Your task to perform on an android device: turn notification dots on Image 0: 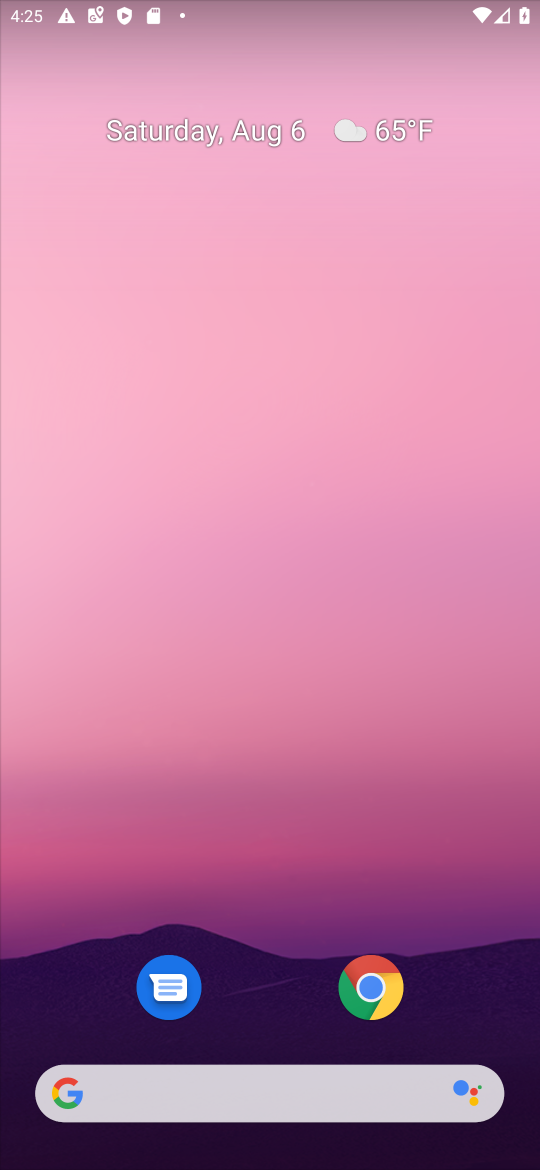
Step 0: drag from (256, 1014) to (291, 136)
Your task to perform on an android device: turn notification dots on Image 1: 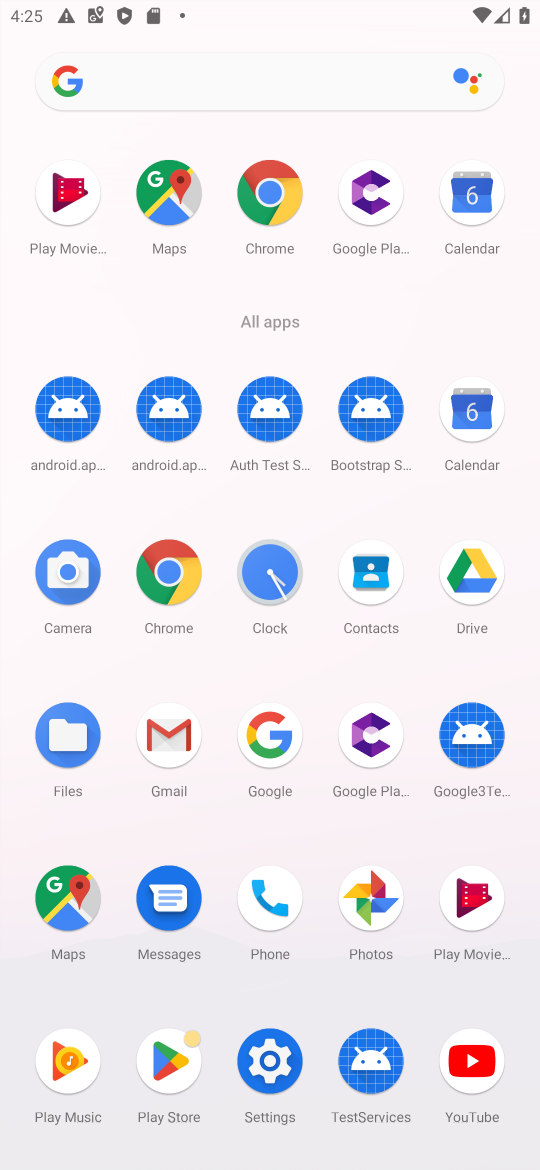
Step 1: click (272, 1066)
Your task to perform on an android device: turn notification dots on Image 2: 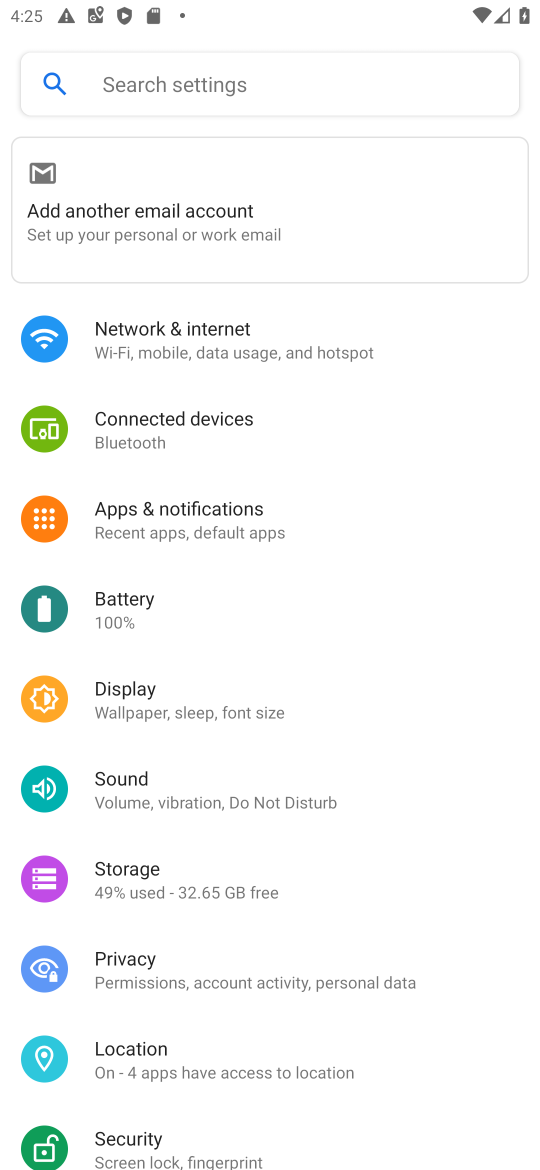
Step 2: click (231, 532)
Your task to perform on an android device: turn notification dots on Image 3: 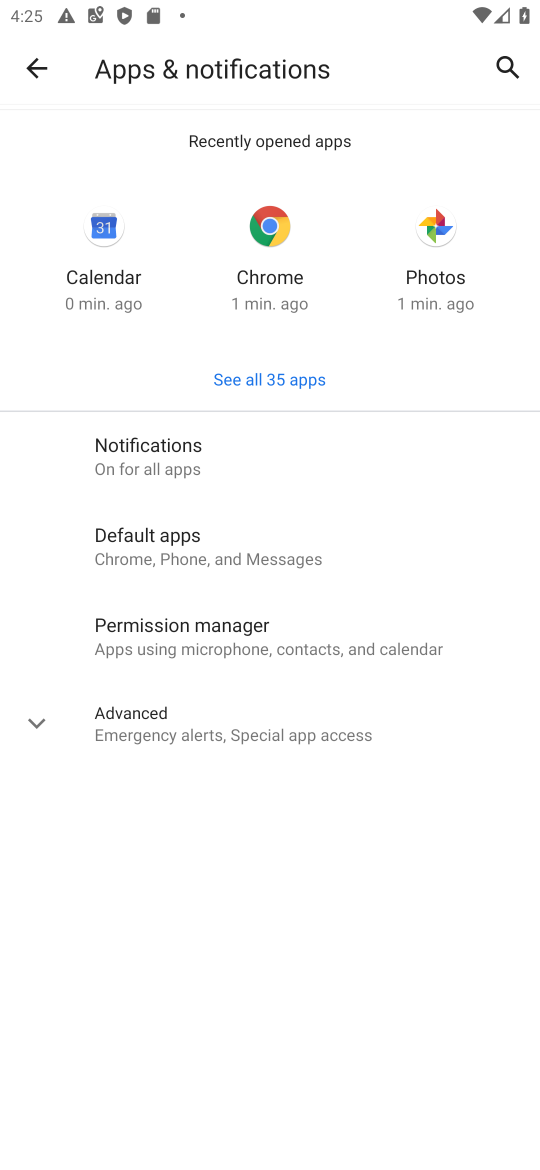
Step 3: click (151, 459)
Your task to perform on an android device: turn notification dots on Image 4: 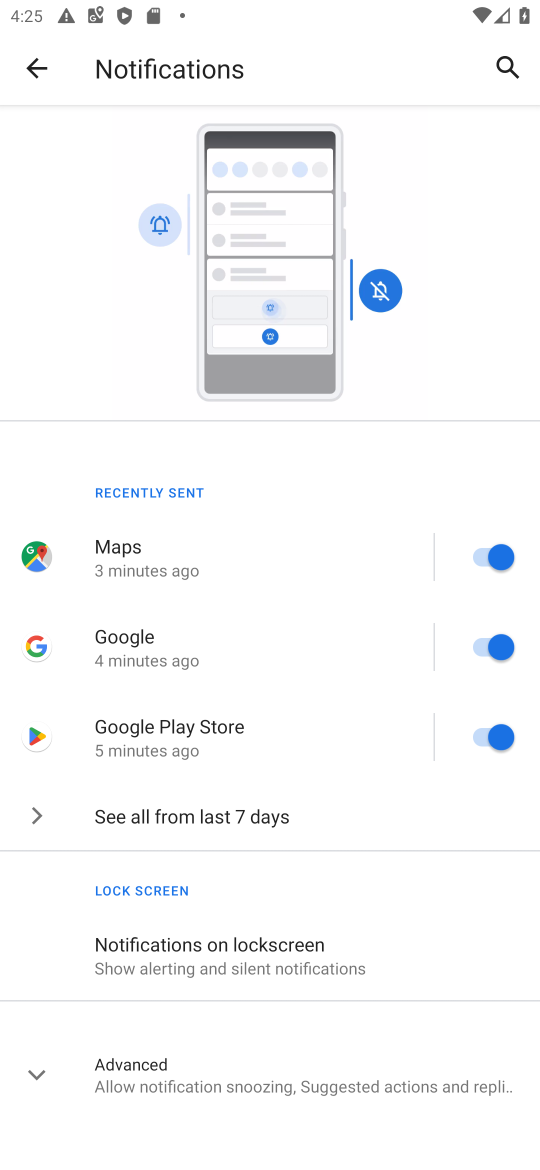
Step 4: drag from (271, 890) to (281, 442)
Your task to perform on an android device: turn notification dots on Image 5: 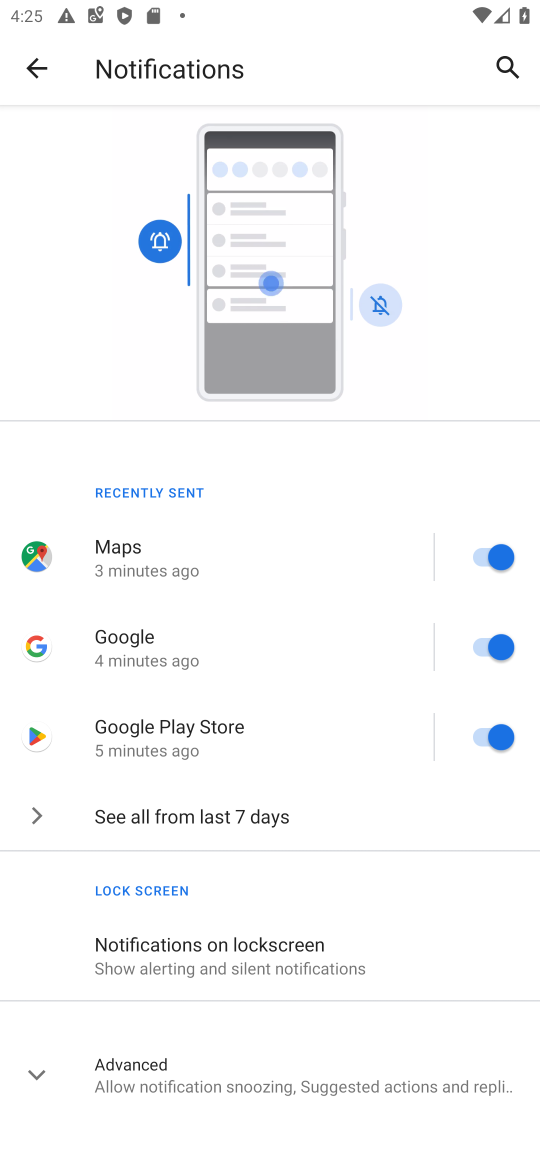
Step 5: click (134, 1056)
Your task to perform on an android device: turn notification dots on Image 6: 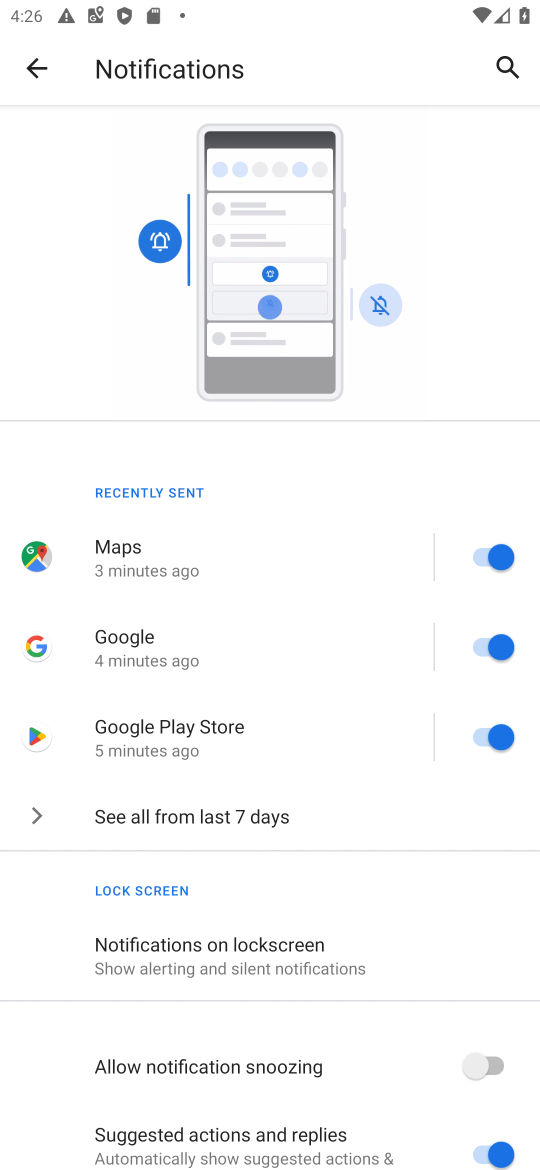
Step 6: task complete